Your task to perform on an android device: check battery use Image 0: 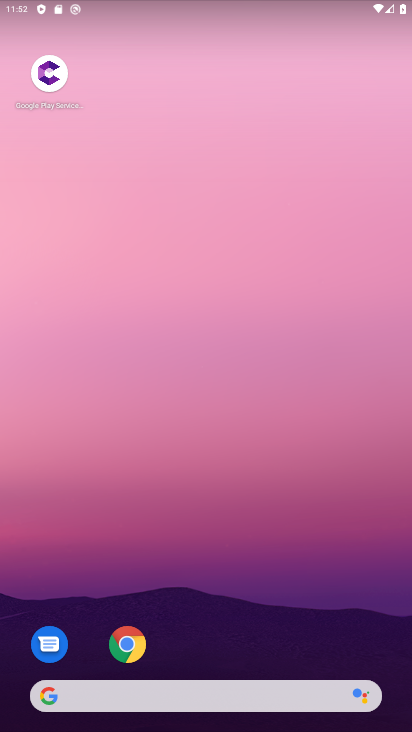
Step 0: drag from (202, 552) to (203, 194)
Your task to perform on an android device: check battery use Image 1: 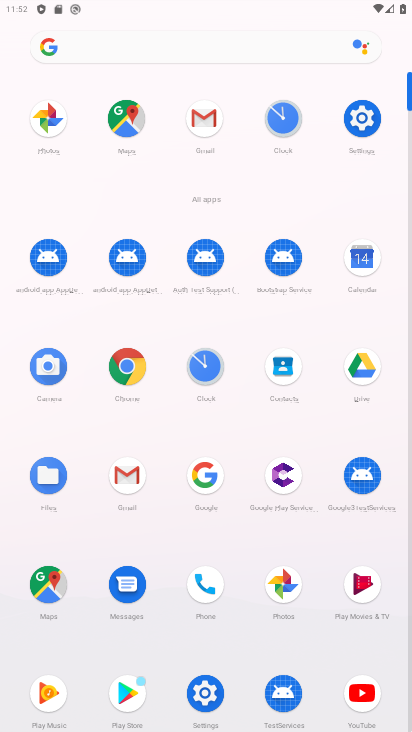
Step 1: click (208, 687)
Your task to perform on an android device: check battery use Image 2: 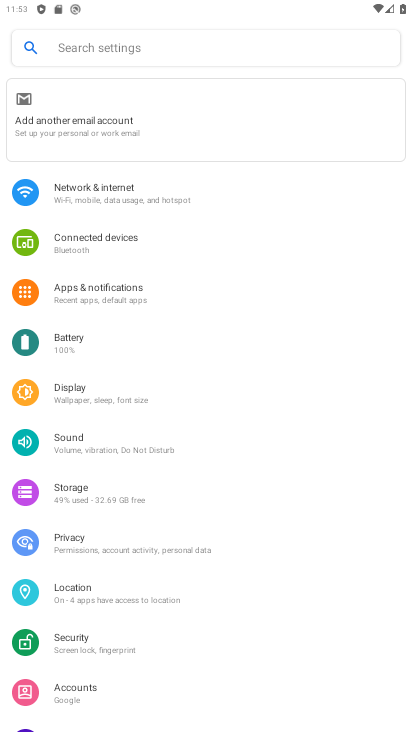
Step 2: click (102, 335)
Your task to perform on an android device: check battery use Image 3: 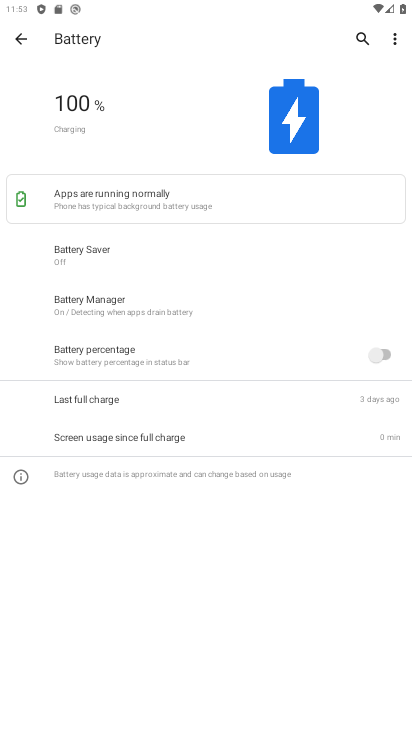
Step 3: click (389, 41)
Your task to perform on an android device: check battery use Image 4: 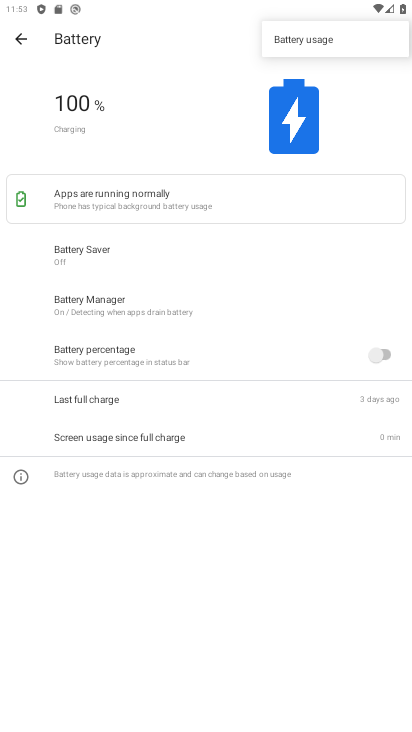
Step 4: click (344, 51)
Your task to perform on an android device: check battery use Image 5: 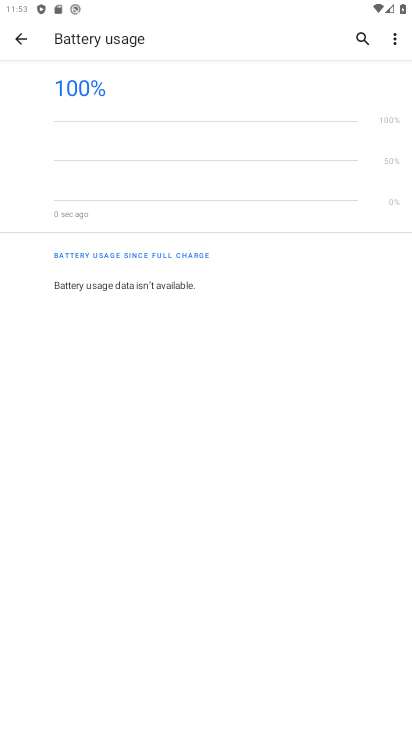
Step 5: task complete